Your task to perform on an android device: open wifi settings Image 0: 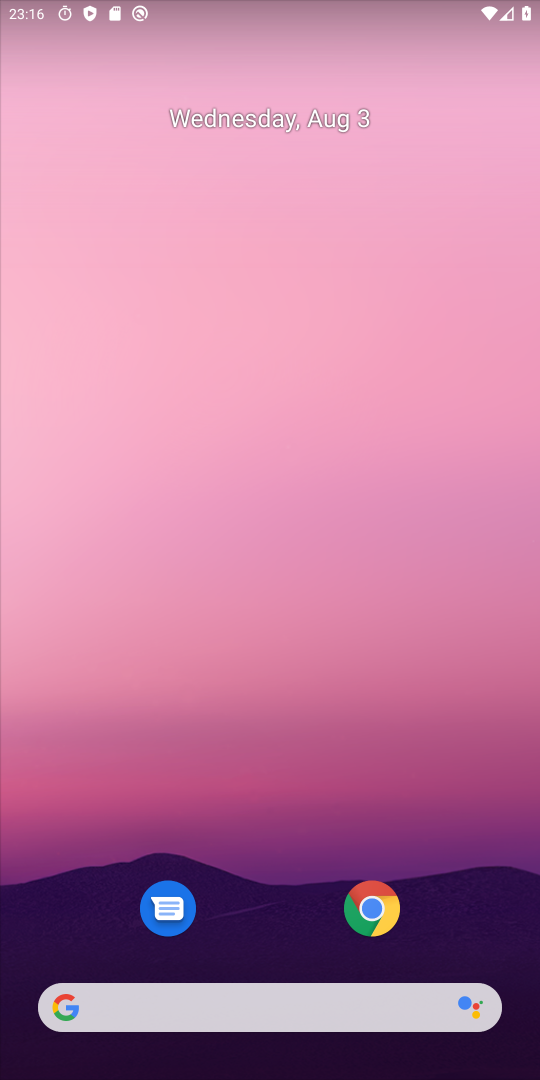
Step 0: press home button
Your task to perform on an android device: open wifi settings Image 1: 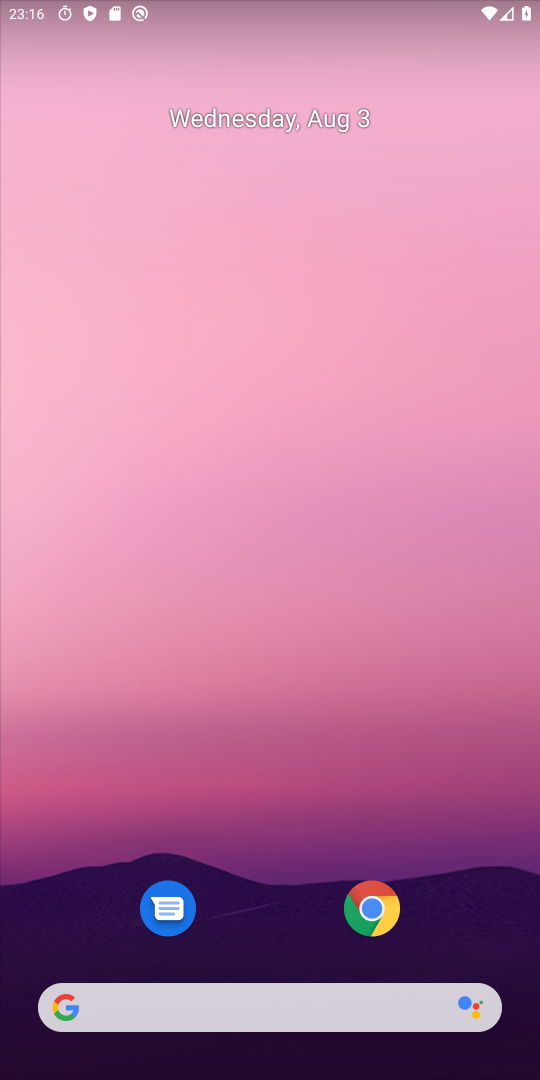
Step 1: drag from (359, 1024) to (389, 441)
Your task to perform on an android device: open wifi settings Image 2: 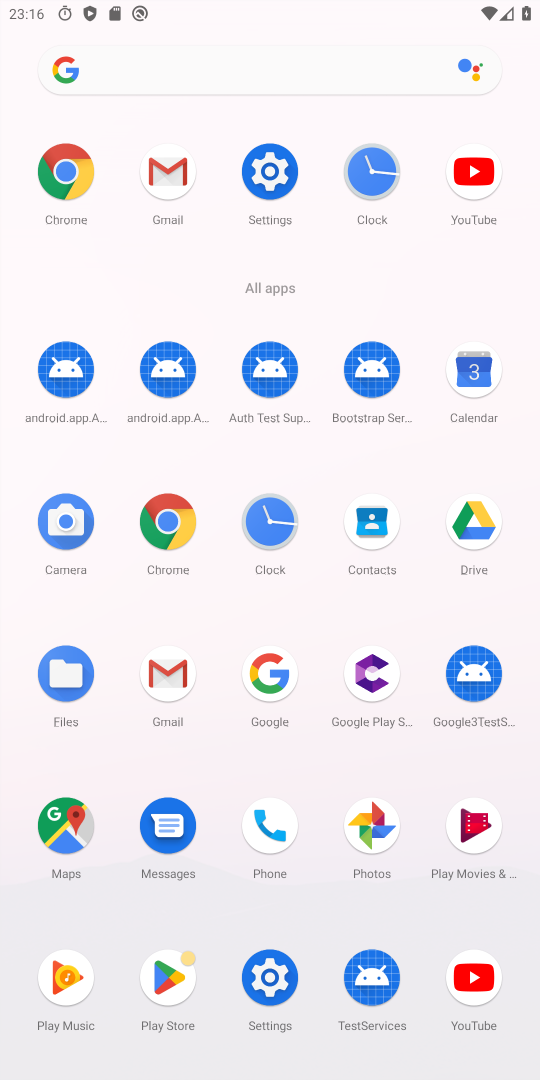
Step 2: click (289, 189)
Your task to perform on an android device: open wifi settings Image 3: 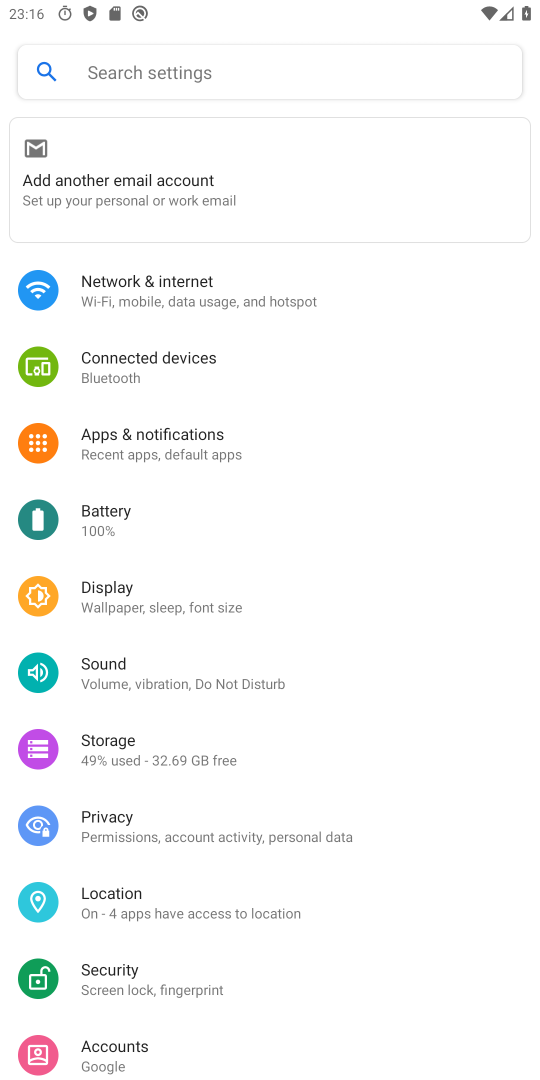
Step 3: click (182, 306)
Your task to perform on an android device: open wifi settings Image 4: 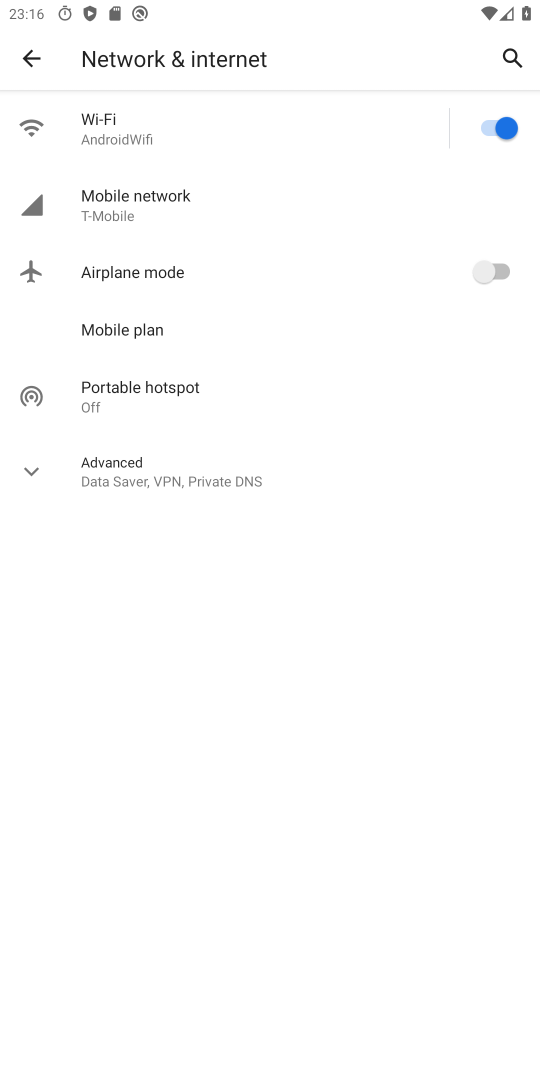
Step 4: click (162, 142)
Your task to perform on an android device: open wifi settings Image 5: 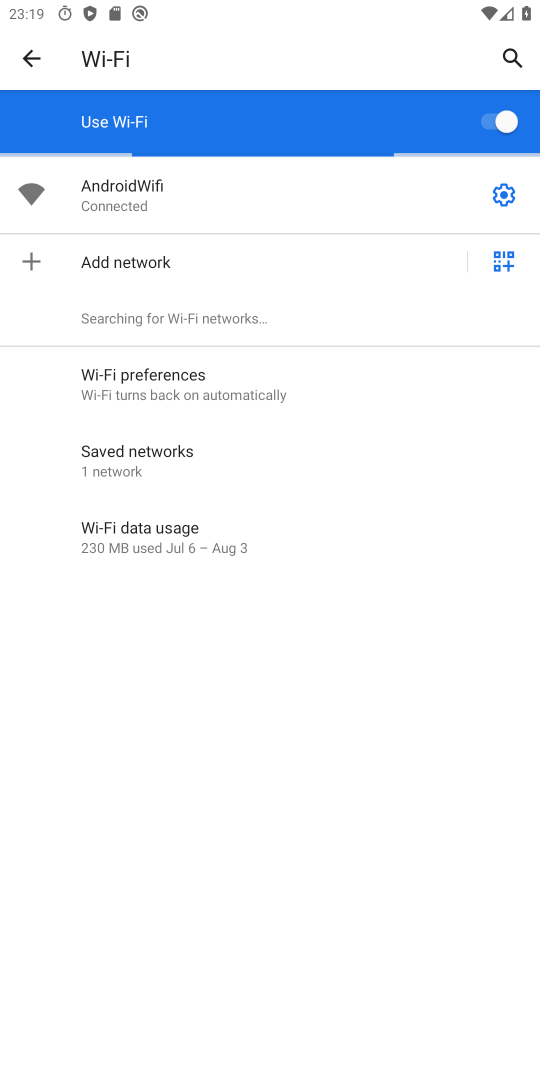
Step 5: task complete